Your task to perform on an android device: Go to Amazon Image 0: 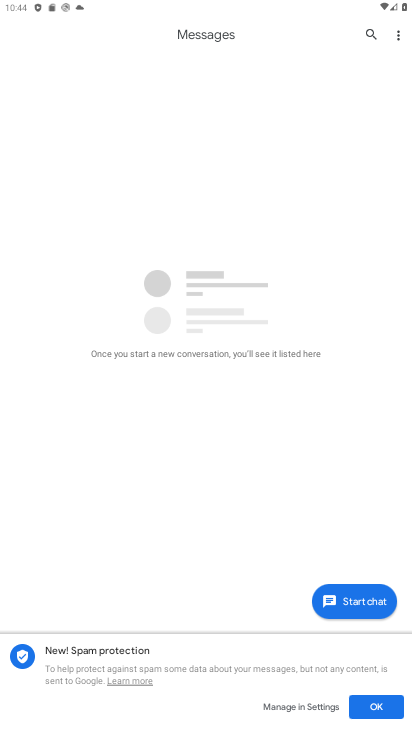
Step 0: press home button
Your task to perform on an android device: Go to Amazon Image 1: 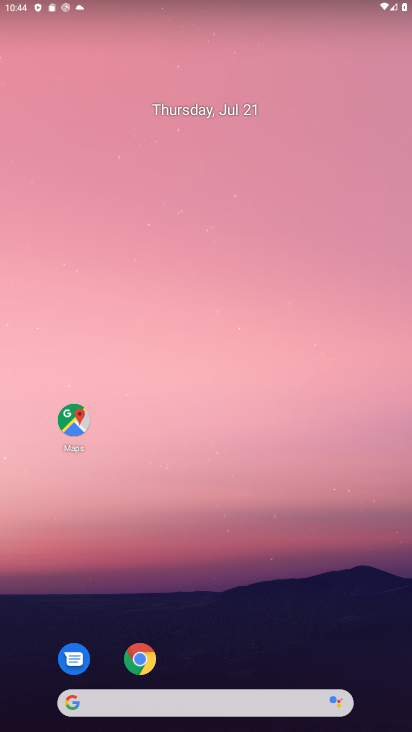
Step 1: click (191, 702)
Your task to perform on an android device: Go to Amazon Image 2: 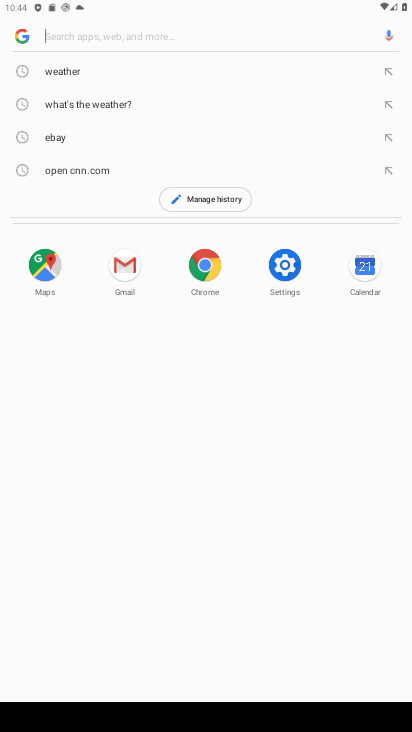
Step 2: type "amazon"
Your task to perform on an android device: Go to Amazon Image 3: 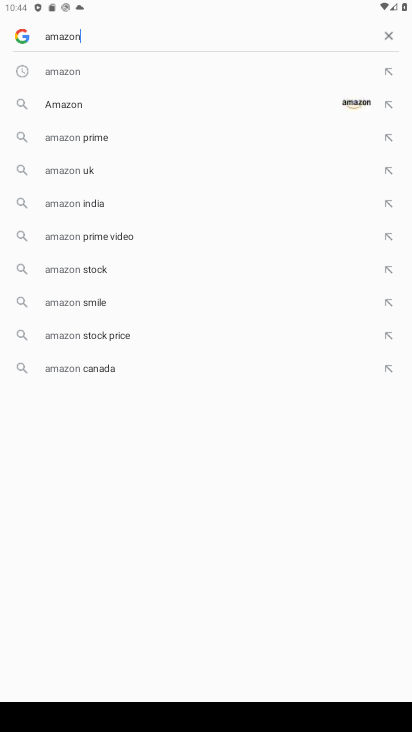
Step 3: click (117, 110)
Your task to perform on an android device: Go to Amazon Image 4: 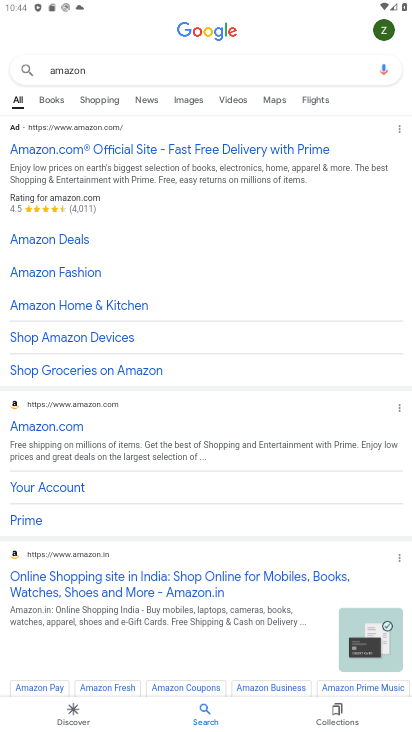
Step 4: task complete